Your task to perform on an android device: Open Chrome and go to the settings page Image 0: 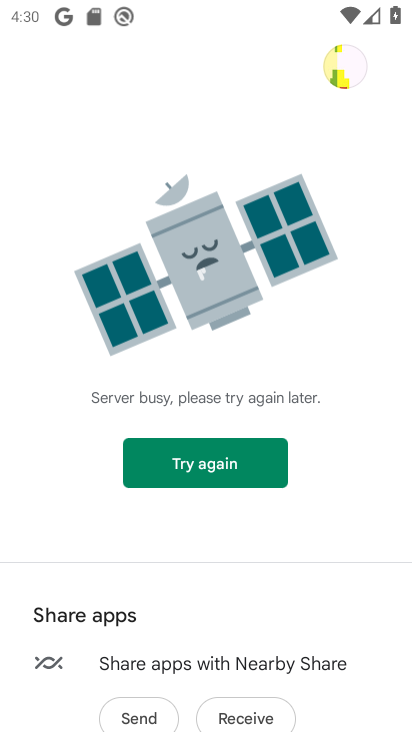
Step 0: press home button
Your task to perform on an android device: Open Chrome and go to the settings page Image 1: 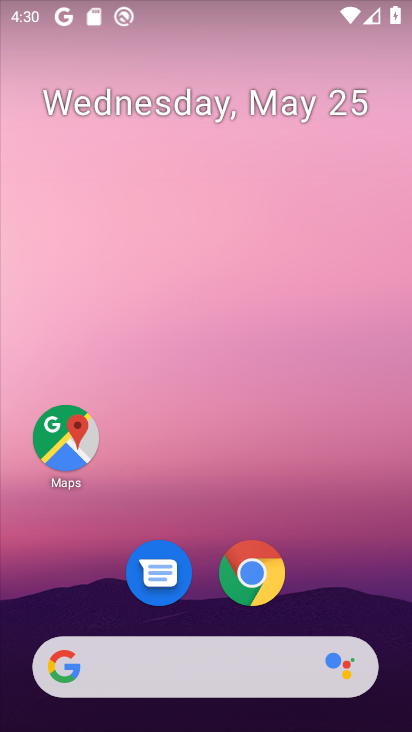
Step 1: click (257, 579)
Your task to perform on an android device: Open Chrome and go to the settings page Image 2: 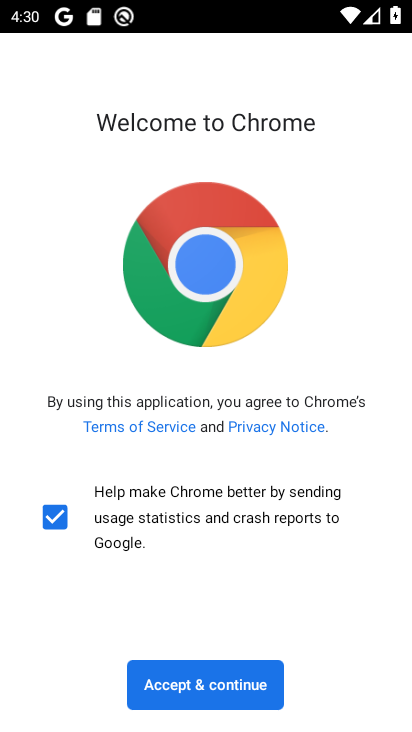
Step 2: click (182, 681)
Your task to perform on an android device: Open Chrome and go to the settings page Image 3: 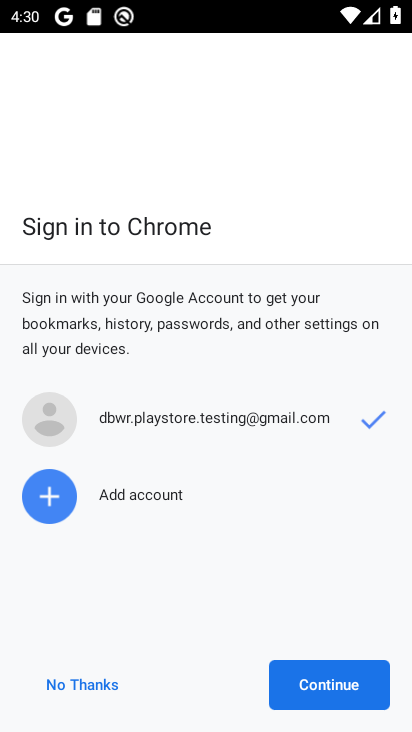
Step 3: click (309, 683)
Your task to perform on an android device: Open Chrome and go to the settings page Image 4: 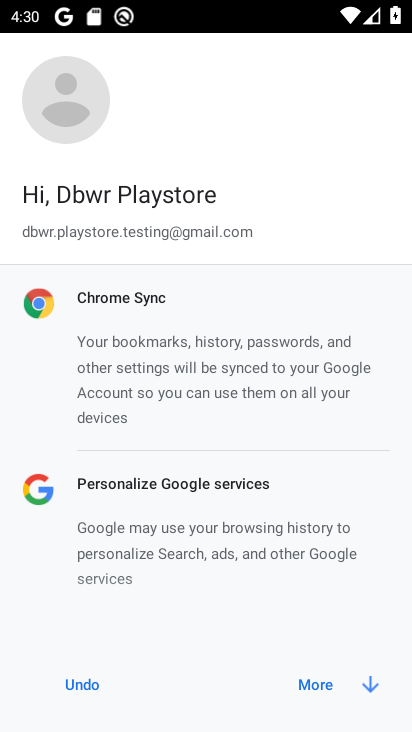
Step 4: click (308, 683)
Your task to perform on an android device: Open Chrome and go to the settings page Image 5: 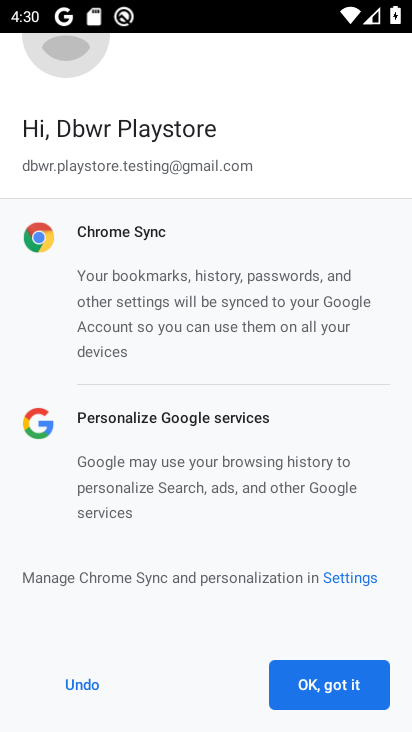
Step 5: click (308, 683)
Your task to perform on an android device: Open Chrome and go to the settings page Image 6: 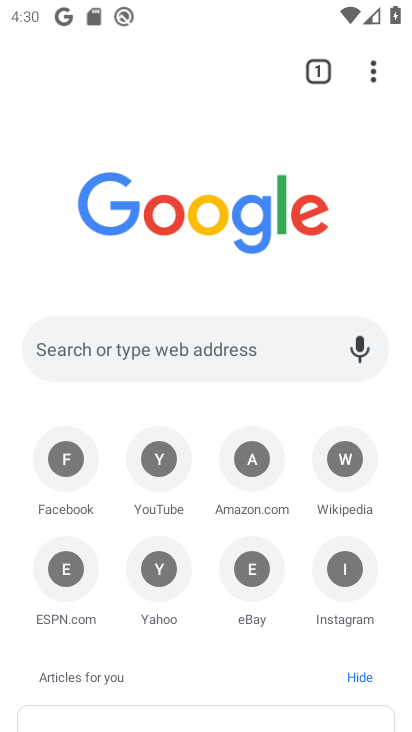
Step 6: click (372, 78)
Your task to perform on an android device: Open Chrome and go to the settings page Image 7: 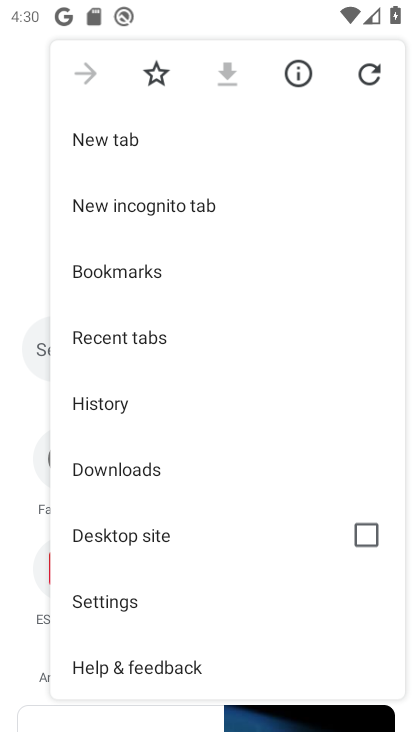
Step 7: click (108, 598)
Your task to perform on an android device: Open Chrome and go to the settings page Image 8: 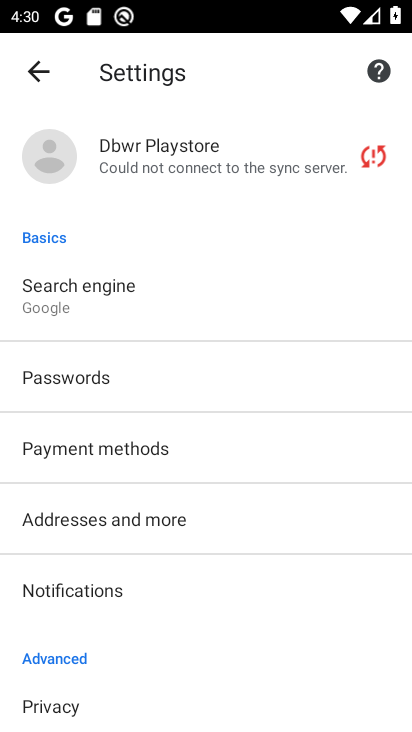
Step 8: task complete